Your task to perform on an android device: check out phone information Image 0: 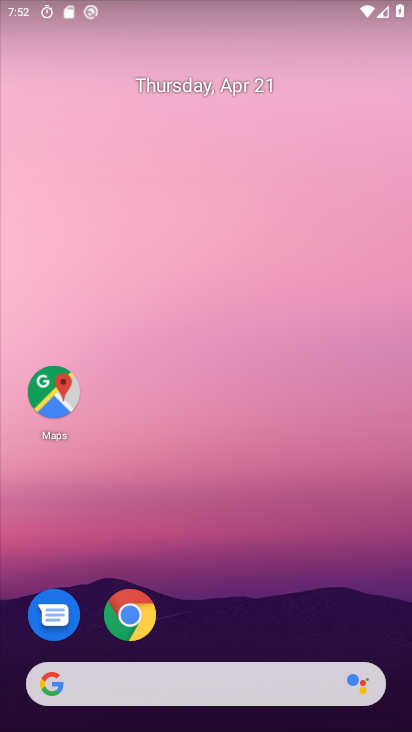
Step 0: drag from (145, 679) to (254, 163)
Your task to perform on an android device: check out phone information Image 1: 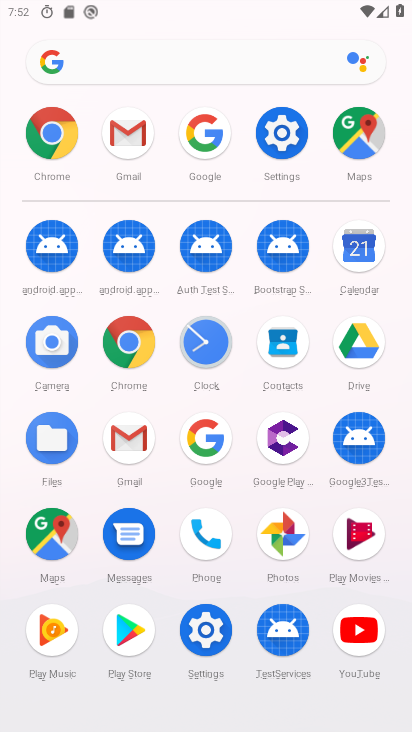
Step 1: click (278, 143)
Your task to perform on an android device: check out phone information Image 2: 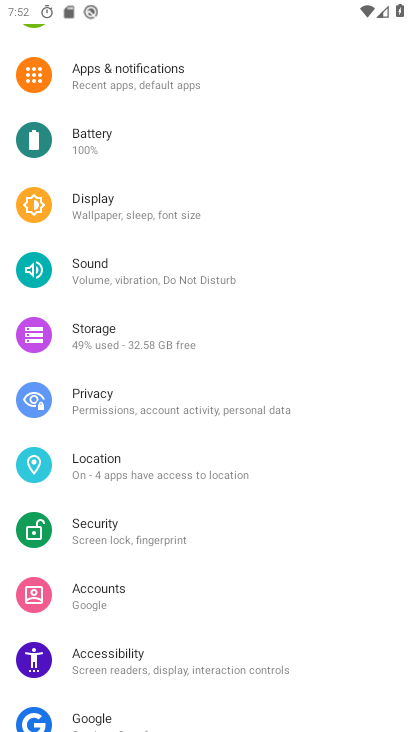
Step 2: drag from (181, 688) to (248, 211)
Your task to perform on an android device: check out phone information Image 3: 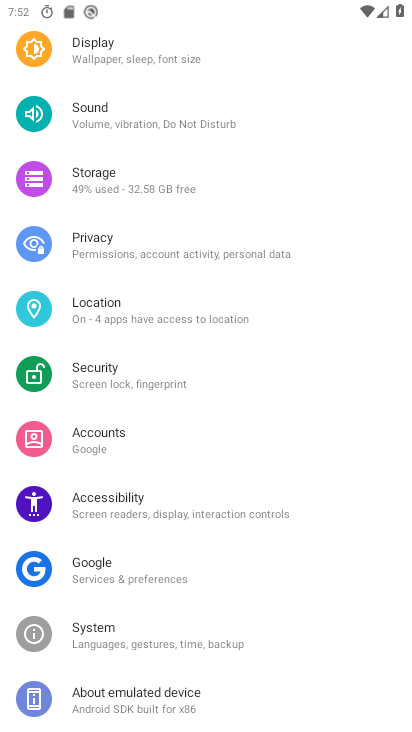
Step 3: drag from (172, 574) to (236, 297)
Your task to perform on an android device: check out phone information Image 4: 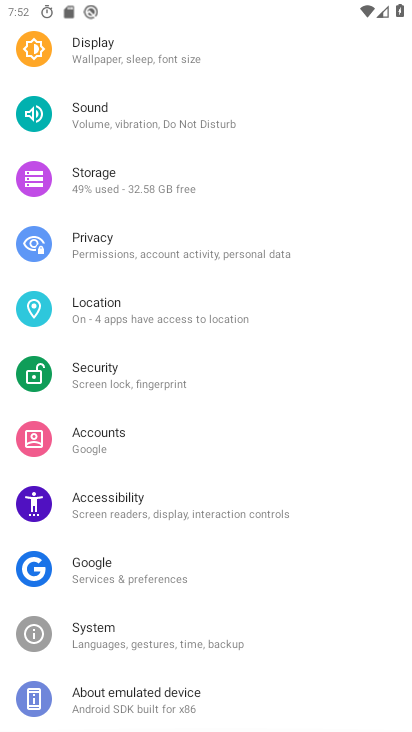
Step 4: click (147, 702)
Your task to perform on an android device: check out phone information Image 5: 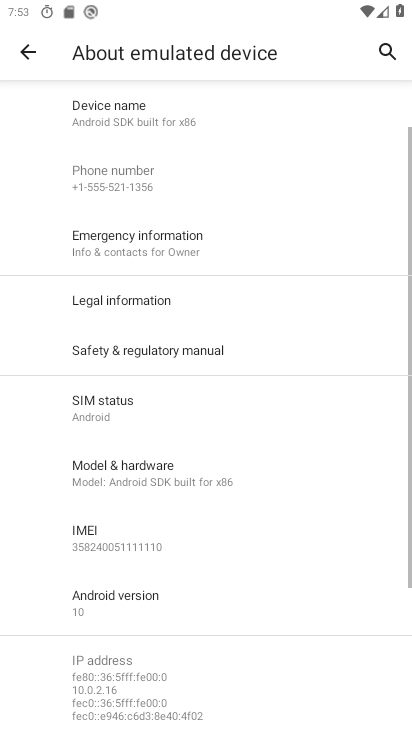
Step 5: task complete